Your task to perform on an android device: Open Google Image 0: 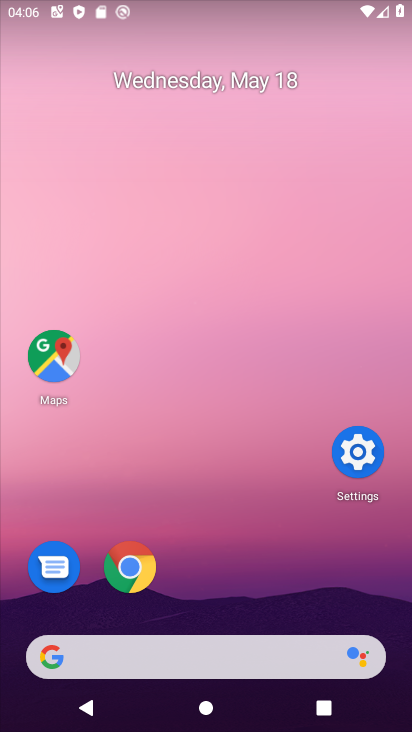
Step 0: drag from (199, 574) to (167, 88)
Your task to perform on an android device: Open Google Image 1: 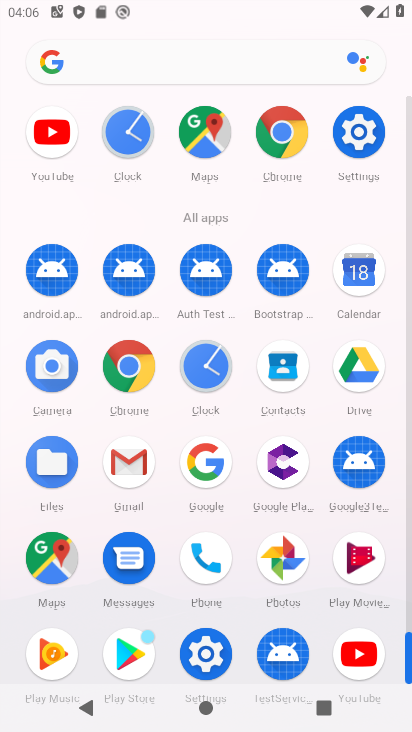
Step 1: click (203, 452)
Your task to perform on an android device: Open Google Image 2: 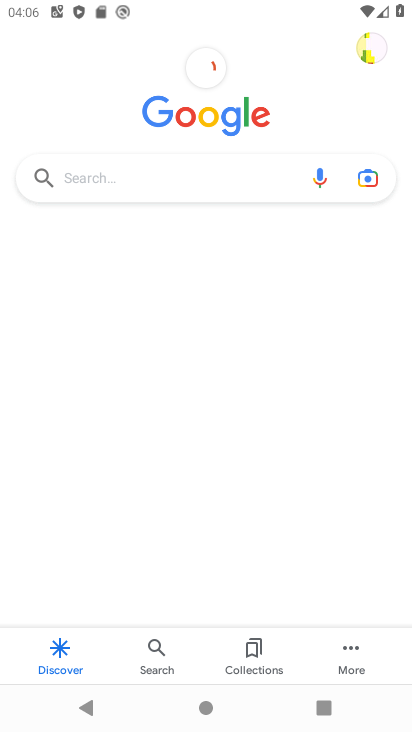
Step 2: task complete